Your task to perform on an android device: turn on notifications settings in the gmail app Image 0: 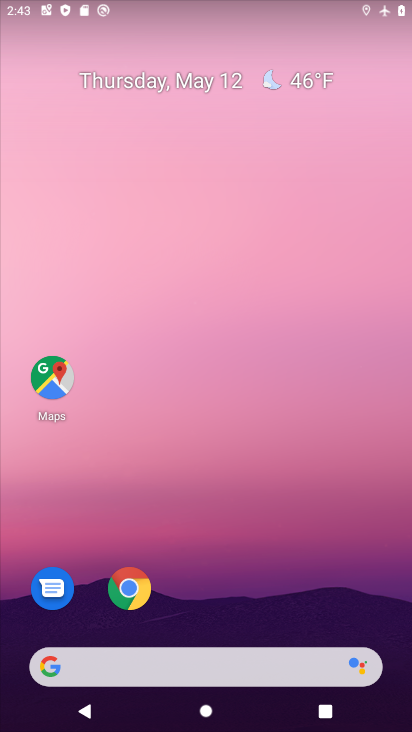
Step 0: drag from (389, 644) to (287, 53)
Your task to perform on an android device: turn on notifications settings in the gmail app Image 1: 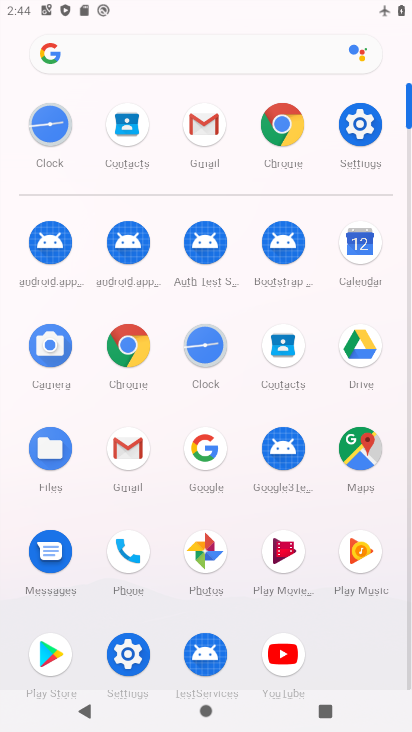
Step 1: click (128, 473)
Your task to perform on an android device: turn on notifications settings in the gmail app Image 2: 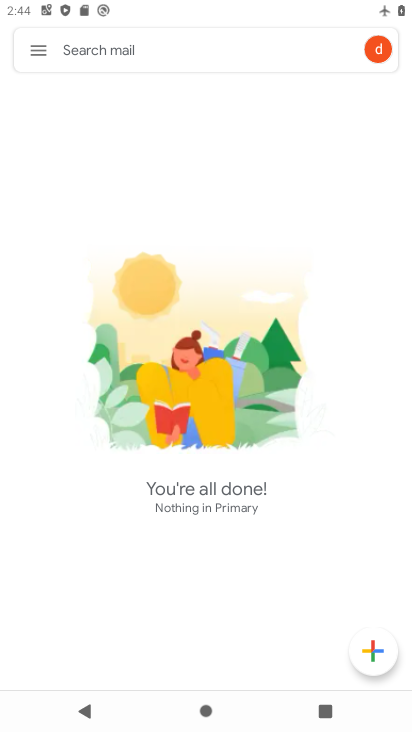
Step 2: click (23, 62)
Your task to perform on an android device: turn on notifications settings in the gmail app Image 3: 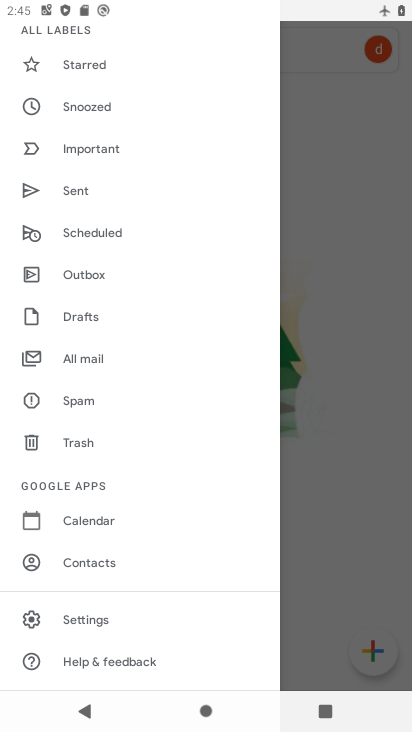
Step 3: click (154, 607)
Your task to perform on an android device: turn on notifications settings in the gmail app Image 4: 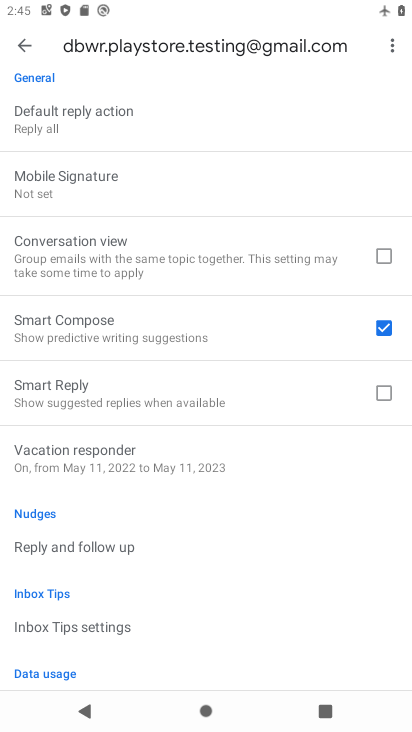
Step 4: drag from (128, 182) to (144, 660)
Your task to perform on an android device: turn on notifications settings in the gmail app Image 5: 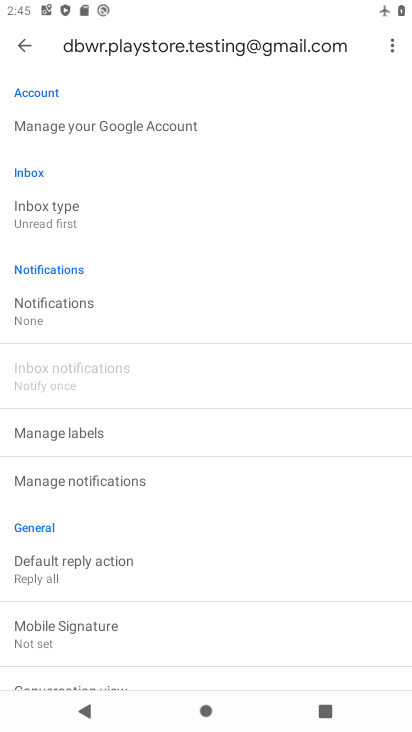
Step 5: click (127, 306)
Your task to perform on an android device: turn on notifications settings in the gmail app Image 6: 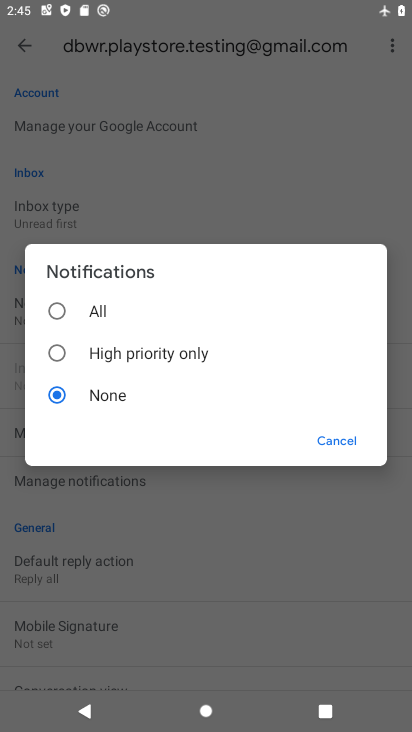
Step 6: click (127, 306)
Your task to perform on an android device: turn on notifications settings in the gmail app Image 7: 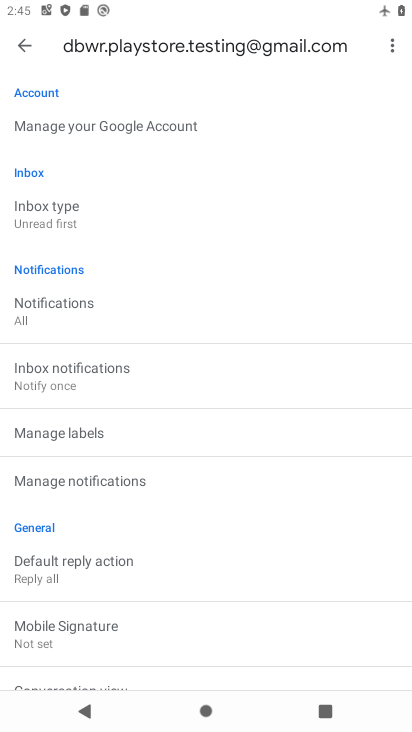
Step 7: task complete